Your task to perform on an android device: View the shopping cart on ebay. Search for "macbook pro 13 inch" on ebay, select the first entry, add it to the cart, then select checkout. Image 0: 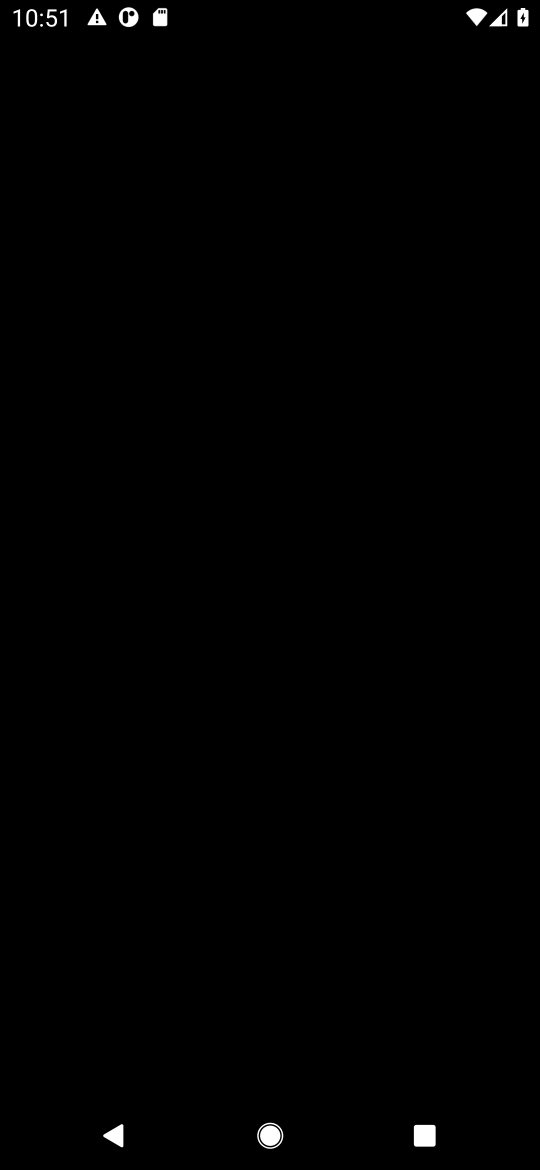
Step 0: press home button
Your task to perform on an android device: View the shopping cart on ebay. Search for "macbook pro 13 inch" on ebay, select the first entry, add it to the cart, then select checkout. Image 1: 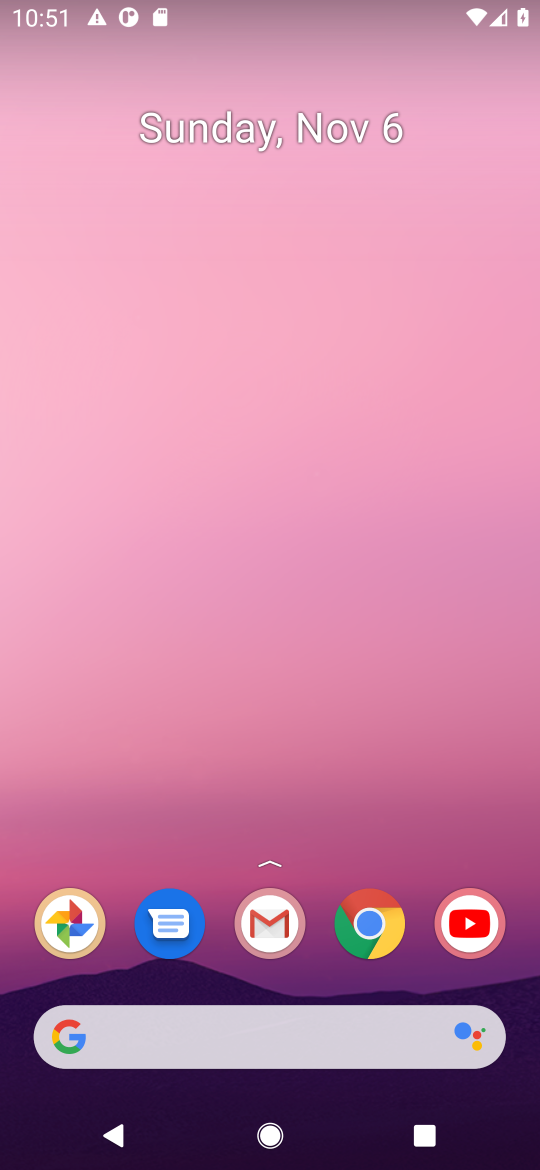
Step 1: click (373, 925)
Your task to perform on an android device: View the shopping cart on ebay. Search for "macbook pro 13 inch" on ebay, select the first entry, add it to the cart, then select checkout. Image 2: 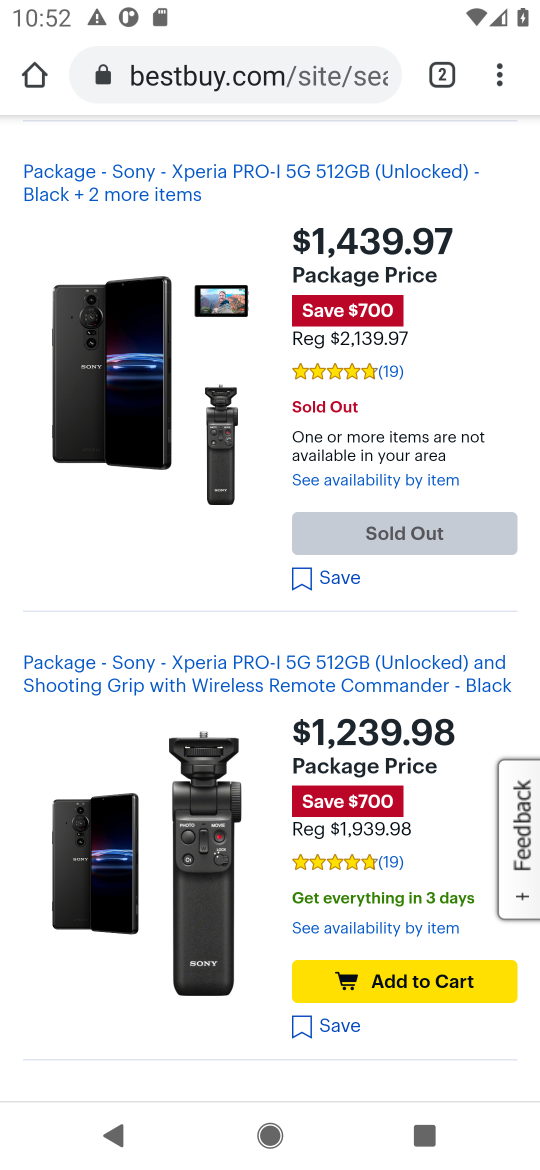
Step 2: click (281, 97)
Your task to perform on an android device: View the shopping cart on ebay. Search for "macbook pro 13 inch" on ebay, select the first entry, add it to the cart, then select checkout. Image 3: 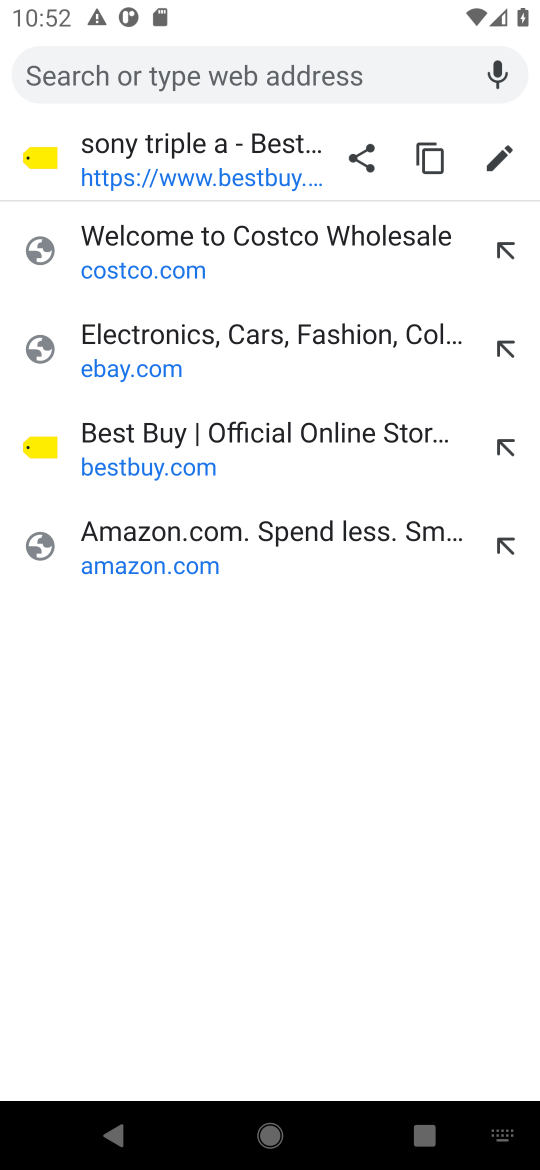
Step 3: click (133, 375)
Your task to perform on an android device: View the shopping cart on ebay. Search for "macbook pro 13 inch" on ebay, select the first entry, add it to the cart, then select checkout. Image 4: 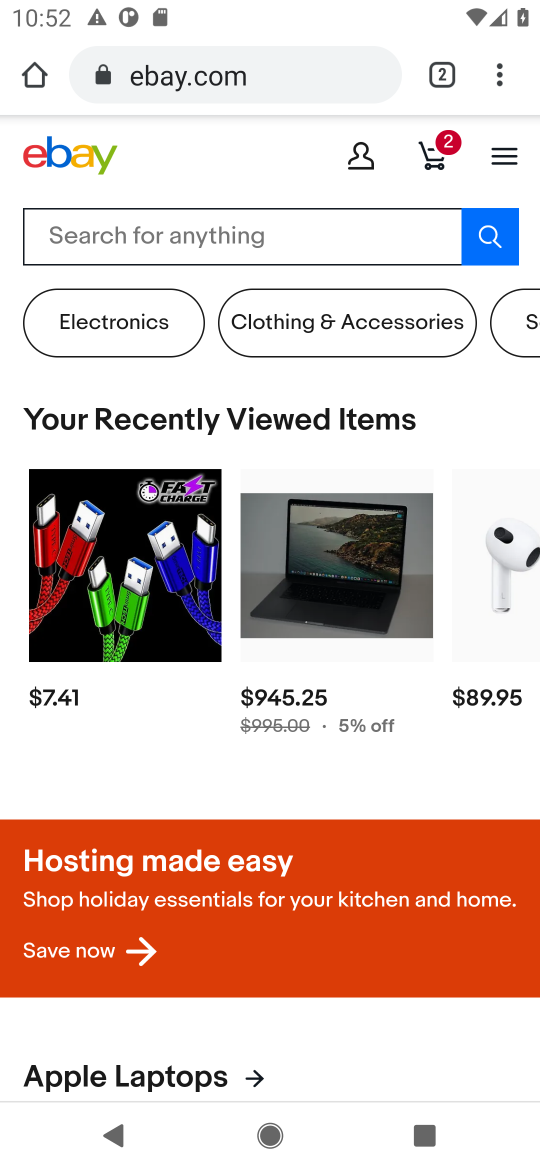
Step 4: click (441, 153)
Your task to perform on an android device: View the shopping cart on ebay. Search for "macbook pro 13 inch" on ebay, select the first entry, add it to the cart, then select checkout. Image 5: 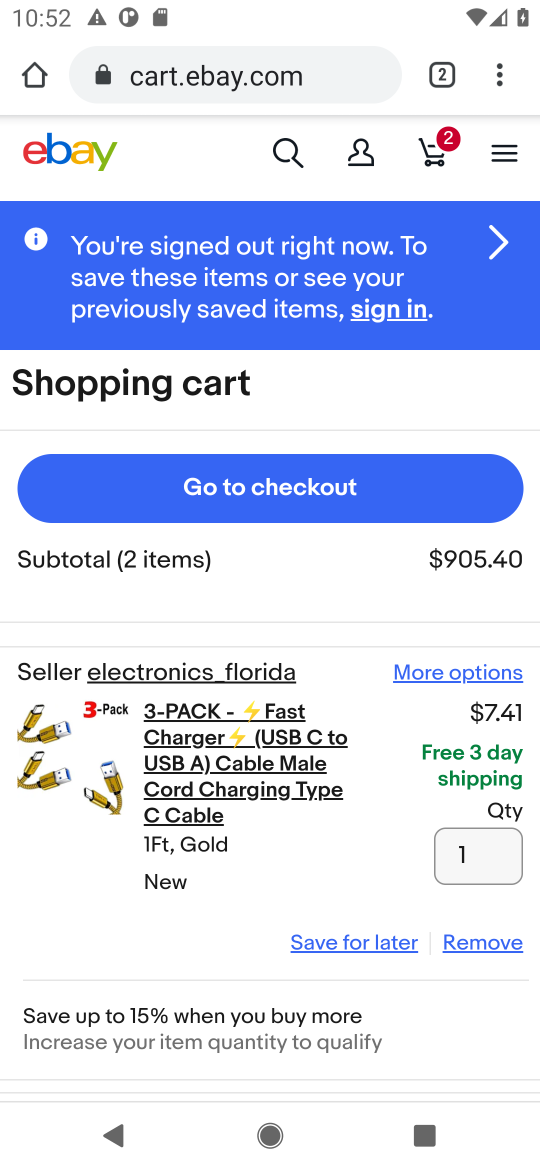
Step 5: click (282, 150)
Your task to perform on an android device: View the shopping cart on ebay. Search for "macbook pro 13 inch" on ebay, select the first entry, add it to the cart, then select checkout. Image 6: 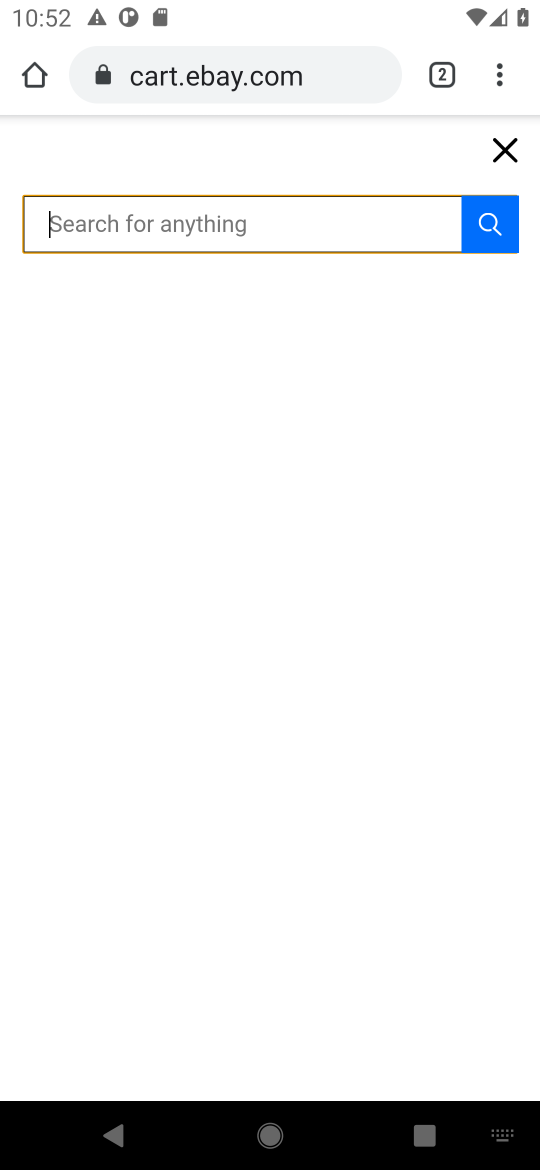
Step 6: type "macbook pro 13 inch"
Your task to perform on an android device: View the shopping cart on ebay. Search for "macbook pro 13 inch" on ebay, select the first entry, add it to the cart, then select checkout. Image 7: 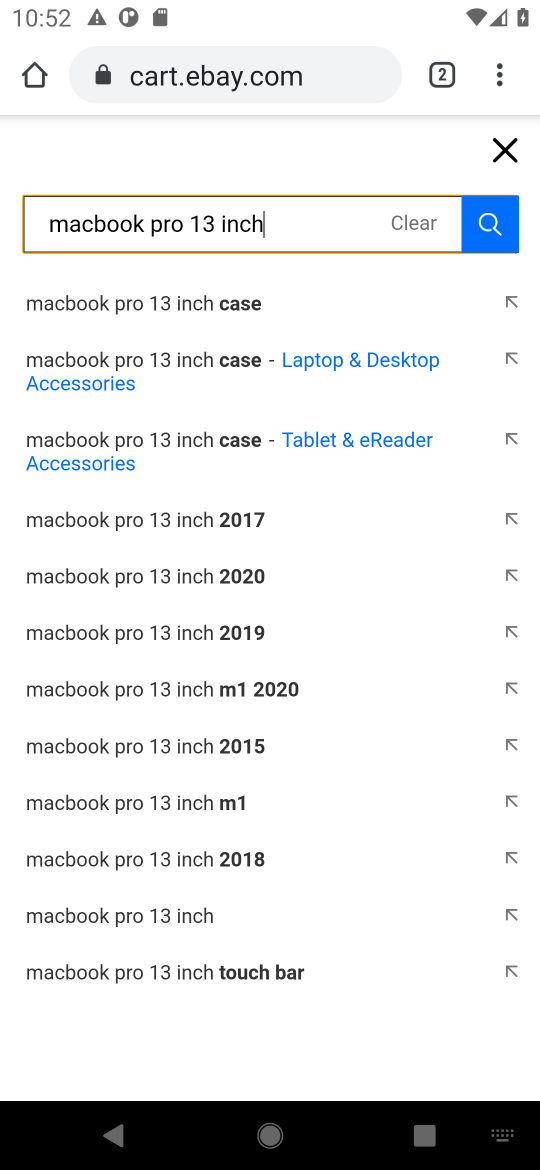
Step 7: click (172, 911)
Your task to perform on an android device: View the shopping cart on ebay. Search for "macbook pro 13 inch" on ebay, select the first entry, add it to the cart, then select checkout. Image 8: 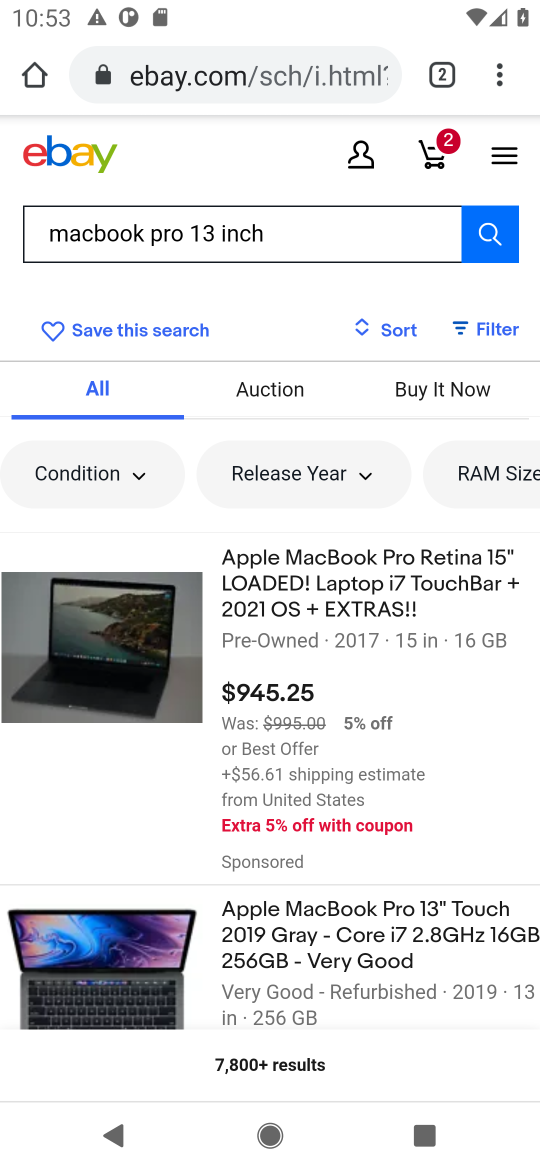
Step 8: task complete